Your task to perform on an android device: turn on wifi Image 0: 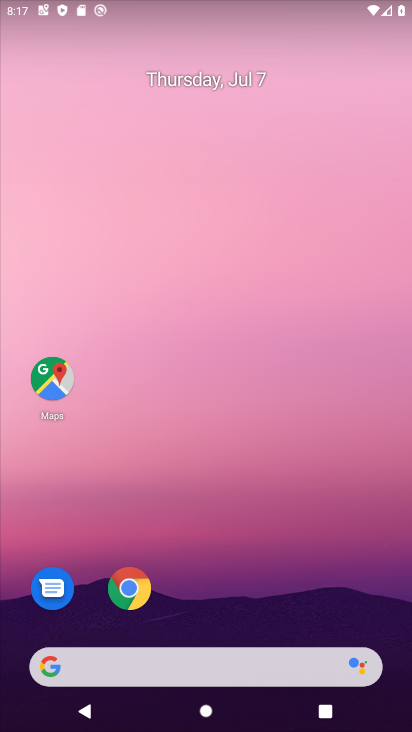
Step 0: click (291, 214)
Your task to perform on an android device: turn on wifi Image 1: 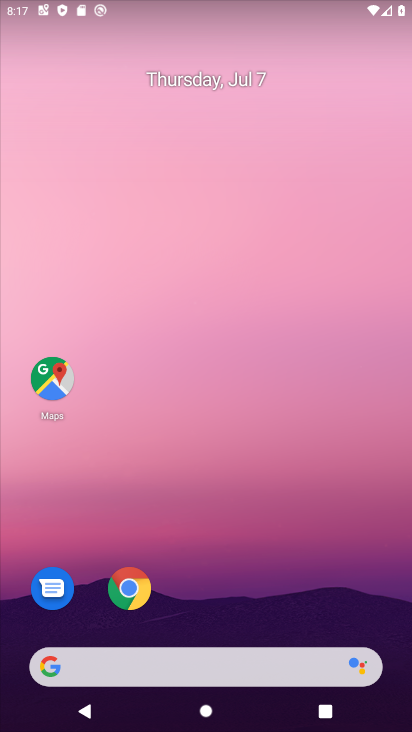
Step 1: drag from (176, 566) to (24, 228)
Your task to perform on an android device: turn on wifi Image 2: 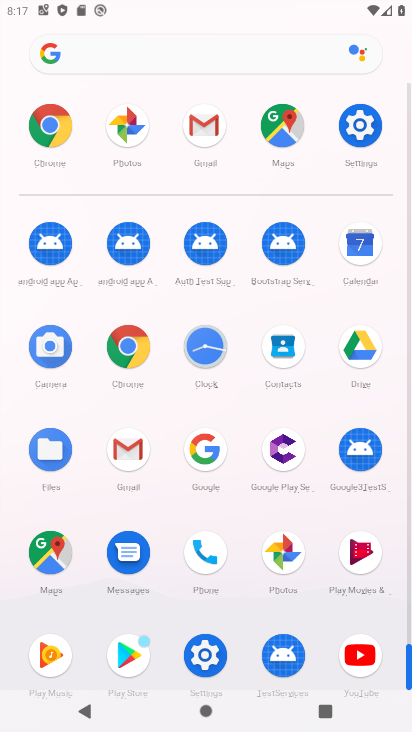
Step 2: click (354, 126)
Your task to perform on an android device: turn on wifi Image 3: 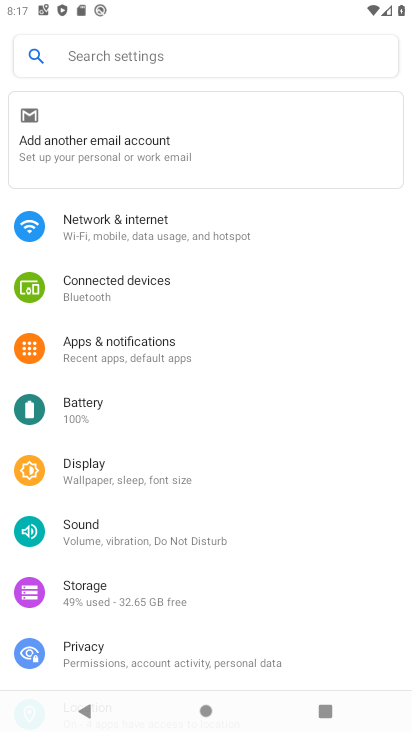
Step 3: click (180, 241)
Your task to perform on an android device: turn on wifi Image 4: 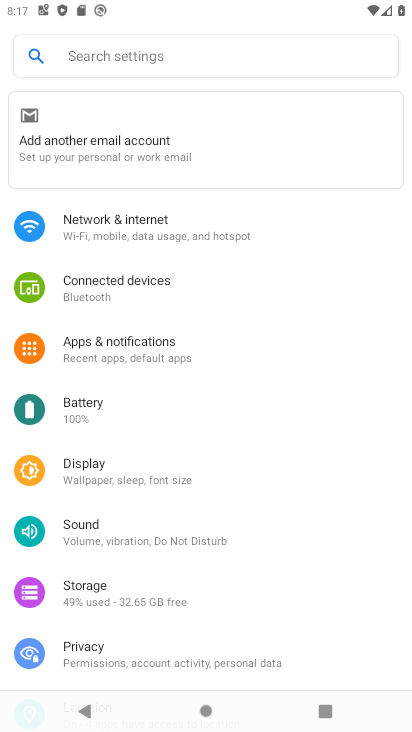
Step 4: click (180, 241)
Your task to perform on an android device: turn on wifi Image 5: 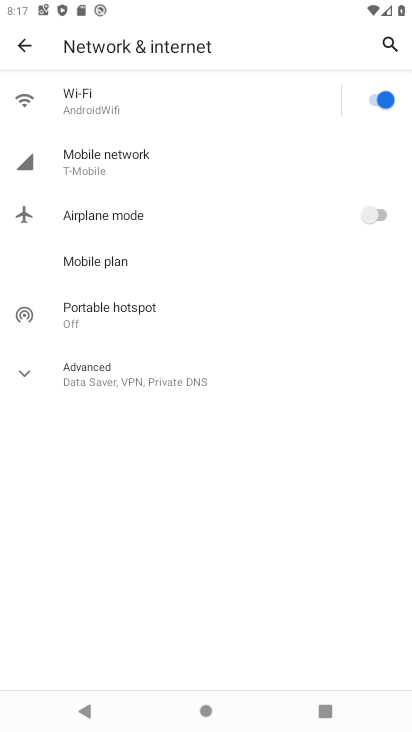
Step 5: click (189, 113)
Your task to perform on an android device: turn on wifi Image 6: 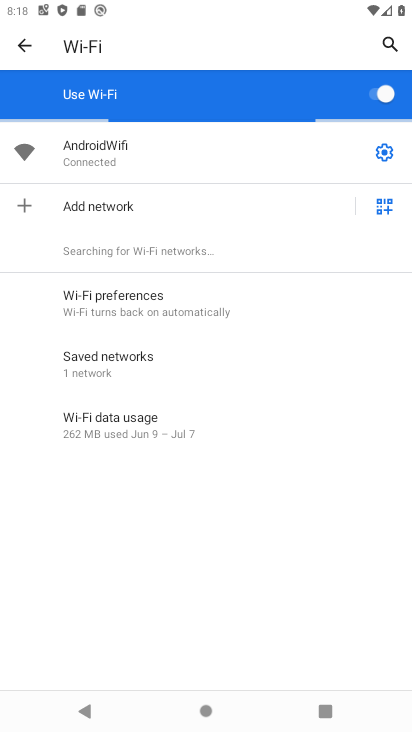
Step 6: task complete